Your task to perform on an android device: What's on my calendar tomorrow? Image 0: 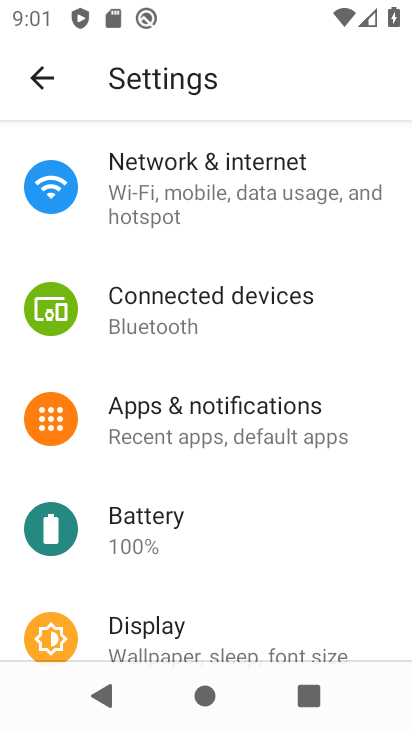
Step 0: press home button
Your task to perform on an android device: What's on my calendar tomorrow? Image 1: 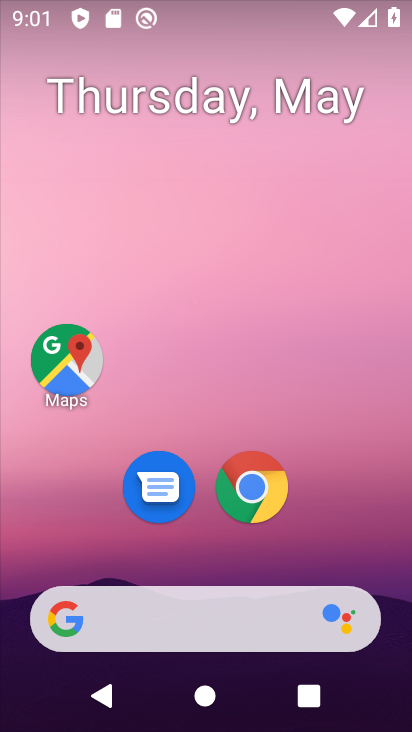
Step 1: drag from (240, 577) to (311, 71)
Your task to perform on an android device: What's on my calendar tomorrow? Image 2: 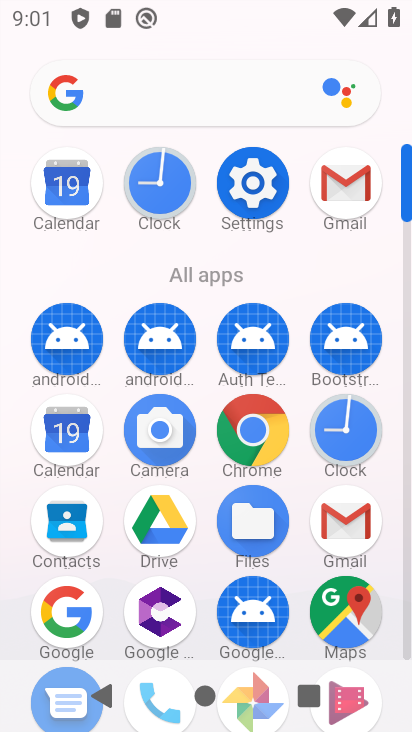
Step 2: click (68, 445)
Your task to perform on an android device: What's on my calendar tomorrow? Image 3: 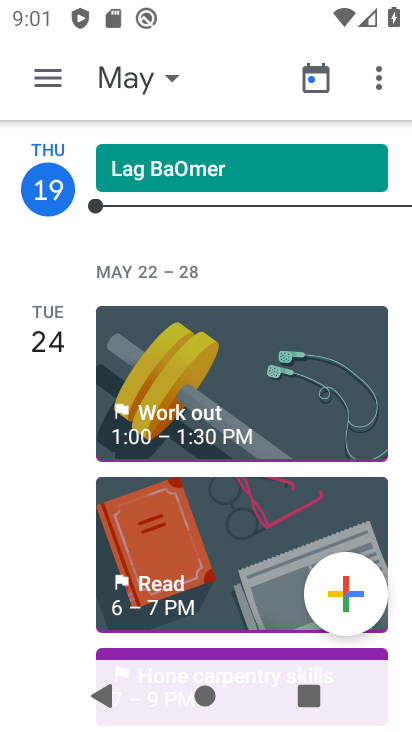
Step 3: task complete